Your task to perform on an android device: toggle translation in the chrome app Image 0: 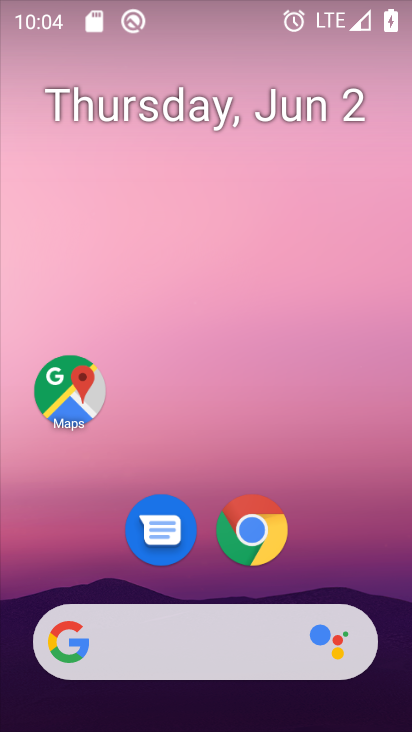
Step 0: click (269, 556)
Your task to perform on an android device: toggle translation in the chrome app Image 1: 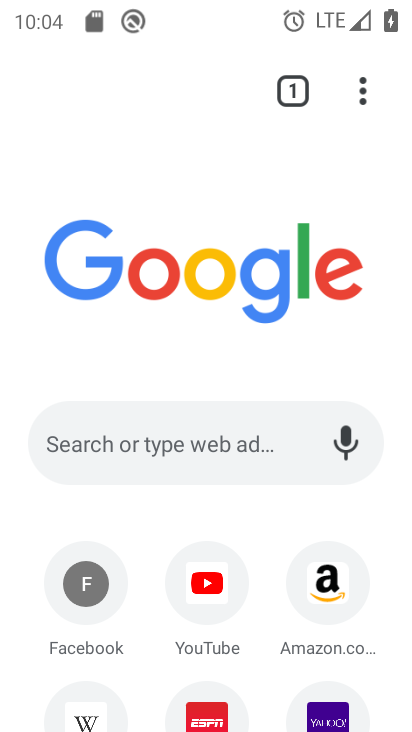
Step 1: click (369, 92)
Your task to perform on an android device: toggle translation in the chrome app Image 2: 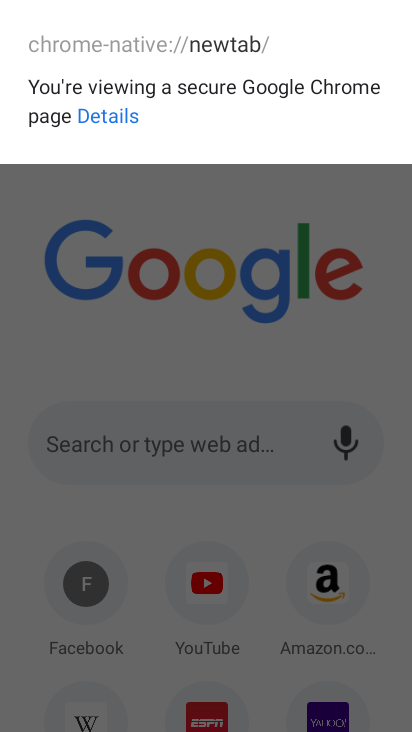
Step 2: click (347, 232)
Your task to perform on an android device: toggle translation in the chrome app Image 3: 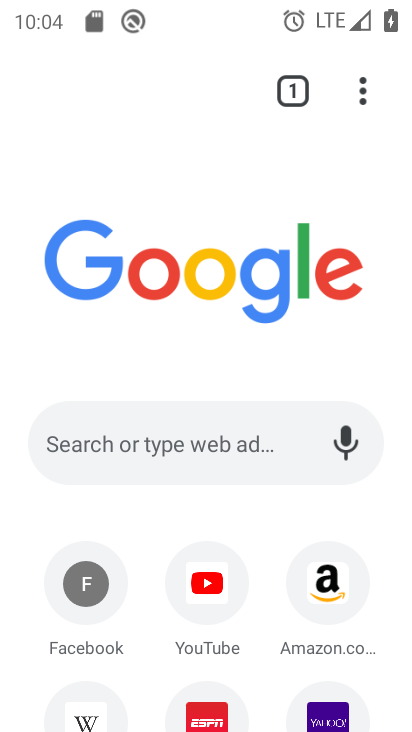
Step 3: click (355, 89)
Your task to perform on an android device: toggle translation in the chrome app Image 4: 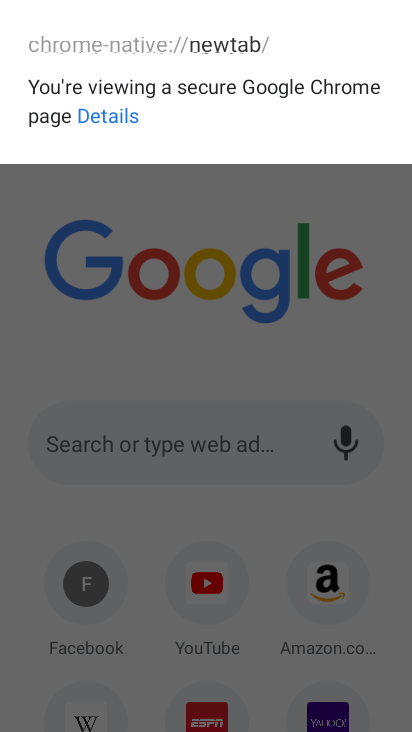
Step 4: click (362, 235)
Your task to perform on an android device: toggle translation in the chrome app Image 5: 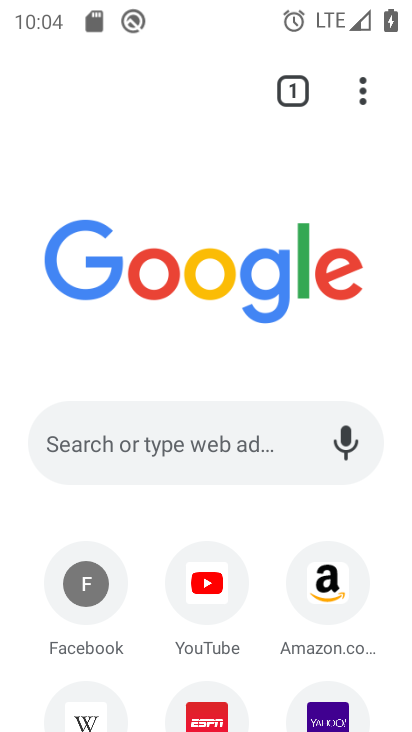
Step 5: click (362, 98)
Your task to perform on an android device: toggle translation in the chrome app Image 6: 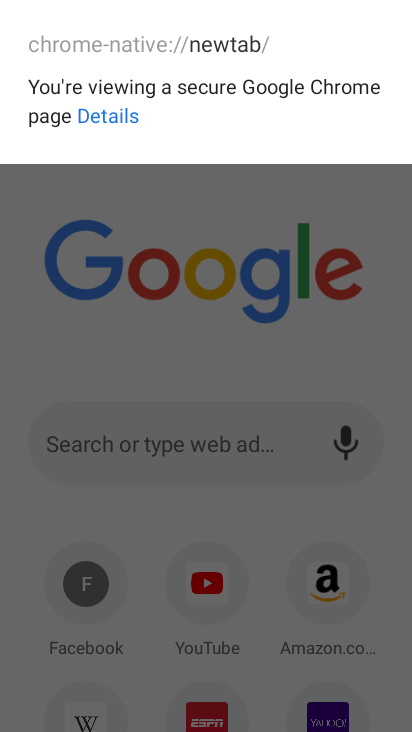
Step 6: click (362, 215)
Your task to perform on an android device: toggle translation in the chrome app Image 7: 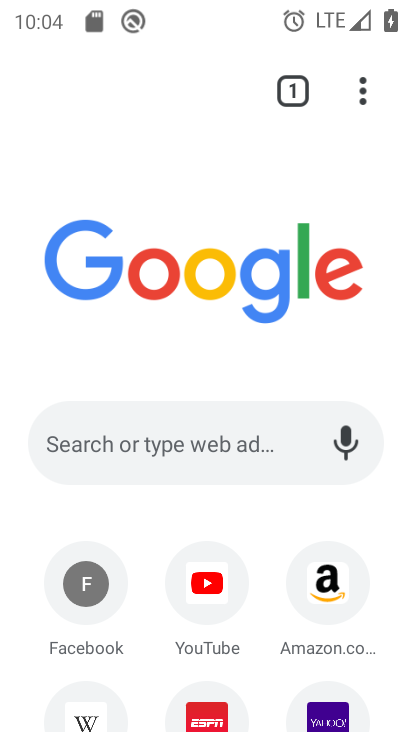
Step 7: click (365, 97)
Your task to perform on an android device: toggle translation in the chrome app Image 8: 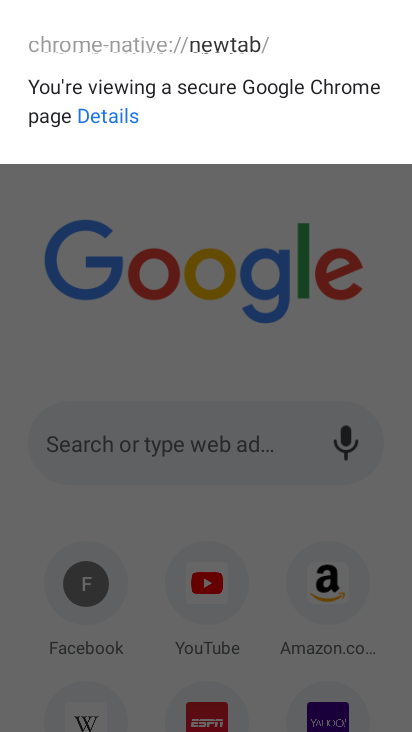
Step 8: click (362, 237)
Your task to perform on an android device: toggle translation in the chrome app Image 9: 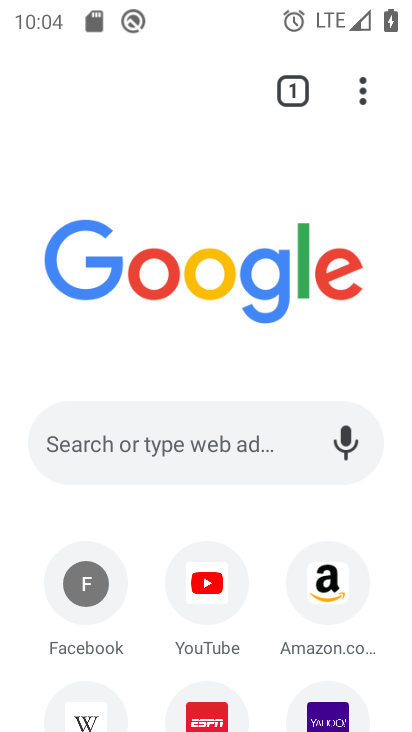
Step 9: click (369, 95)
Your task to perform on an android device: toggle translation in the chrome app Image 10: 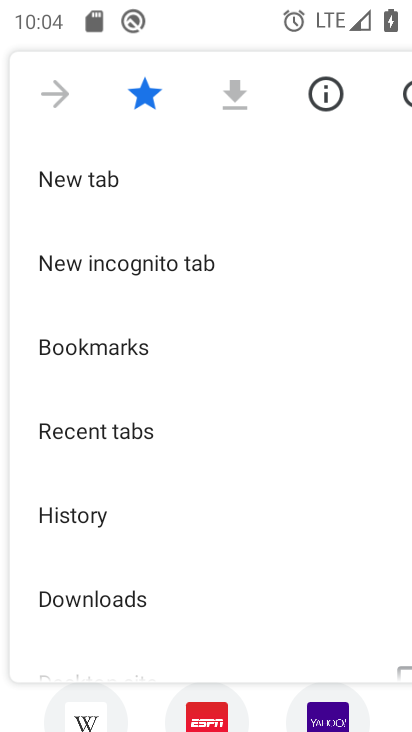
Step 10: drag from (105, 606) to (102, 228)
Your task to perform on an android device: toggle translation in the chrome app Image 11: 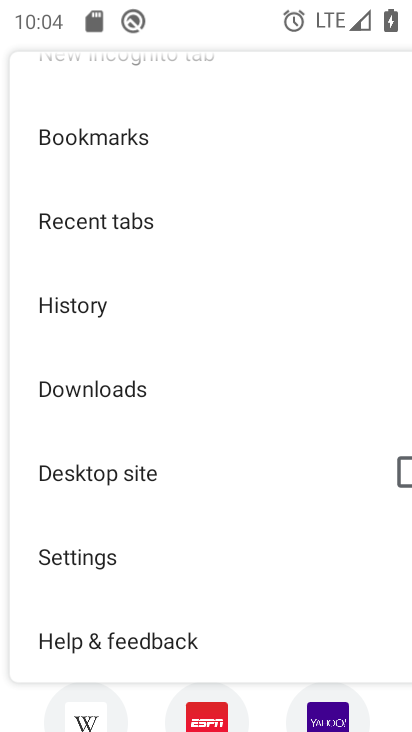
Step 11: click (100, 555)
Your task to perform on an android device: toggle translation in the chrome app Image 12: 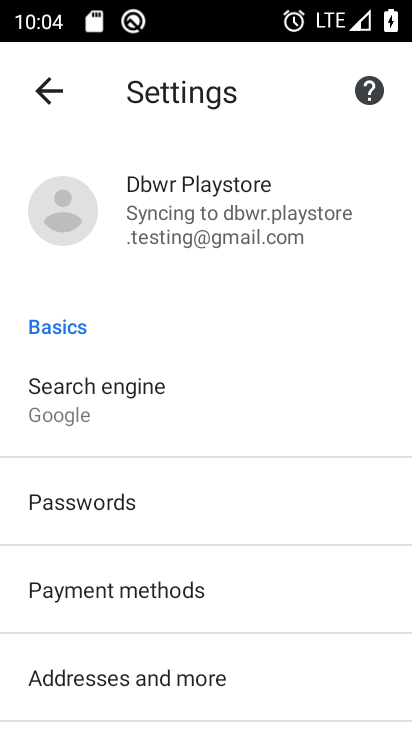
Step 12: drag from (95, 705) to (125, 521)
Your task to perform on an android device: toggle translation in the chrome app Image 13: 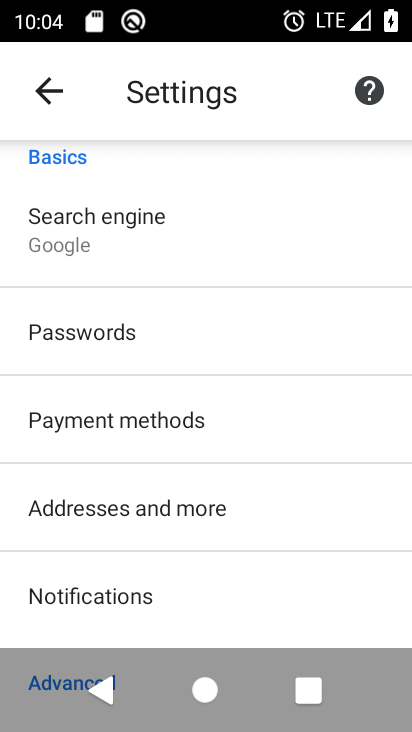
Step 13: drag from (140, 613) to (191, 274)
Your task to perform on an android device: toggle translation in the chrome app Image 14: 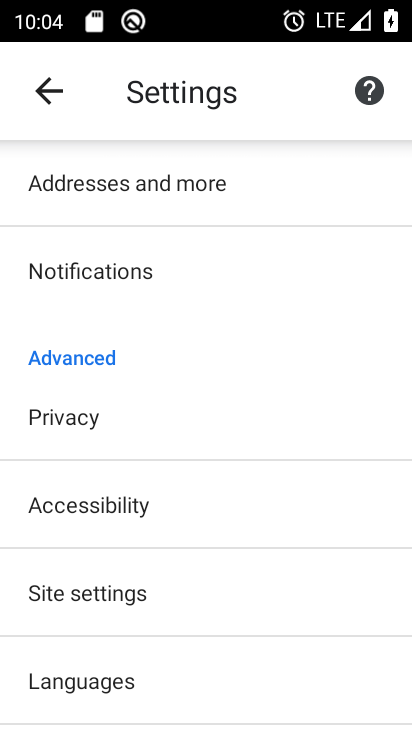
Step 14: click (44, 687)
Your task to perform on an android device: toggle translation in the chrome app Image 15: 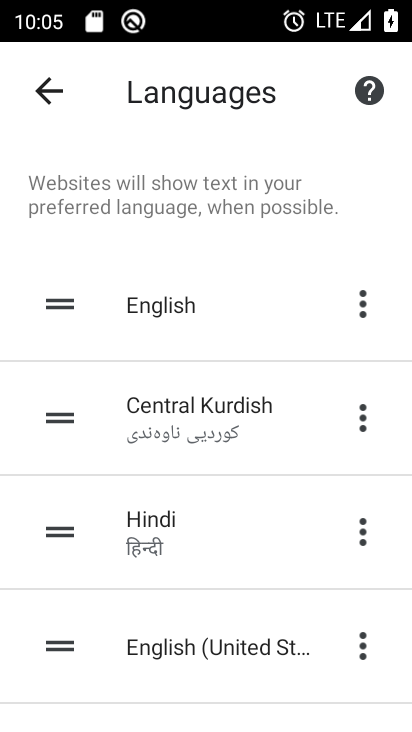
Step 15: drag from (160, 707) to (171, 250)
Your task to perform on an android device: toggle translation in the chrome app Image 16: 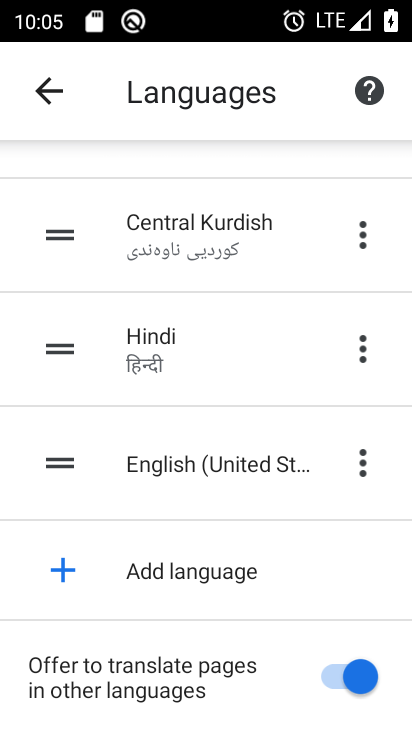
Step 16: click (338, 673)
Your task to perform on an android device: toggle translation in the chrome app Image 17: 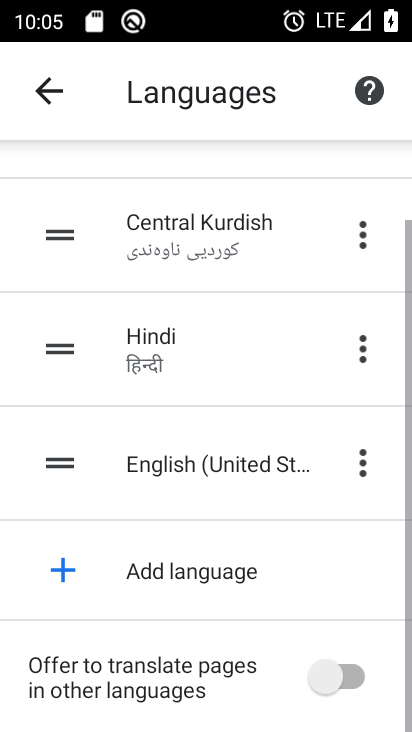
Step 17: task complete